Your task to perform on an android device: Open calendar and show me the first week of next month Image 0: 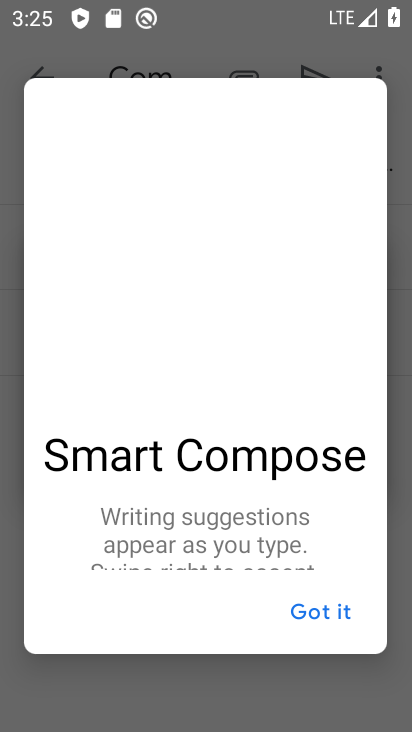
Step 0: press home button
Your task to perform on an android device: Open calendar and show me the first week of next month Image 1: 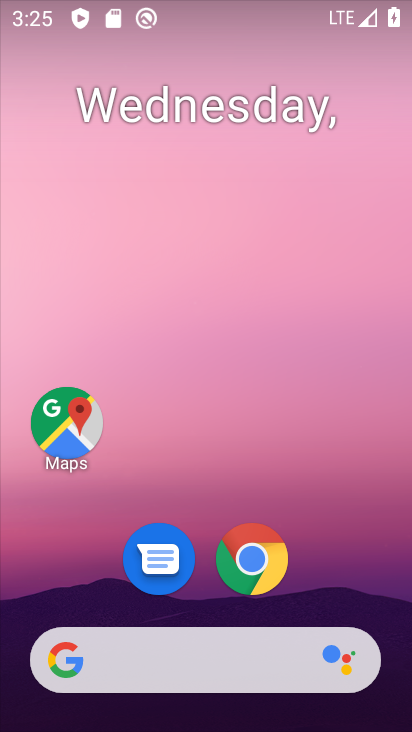
Step 1: drag from (334, 570) to (253, 177)
Your task to perform on an android device: Open calendar and show me the first week of next month Image 2: 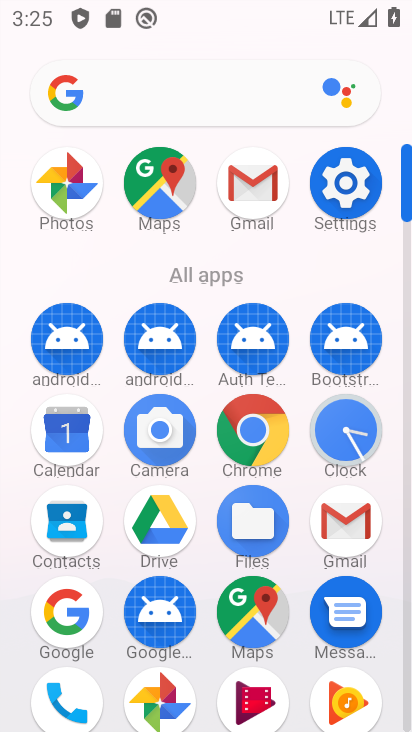
Step 2: click (57, 448)
Your task to perform on an android device: Open calendar and show me the first week of next month Image 3: 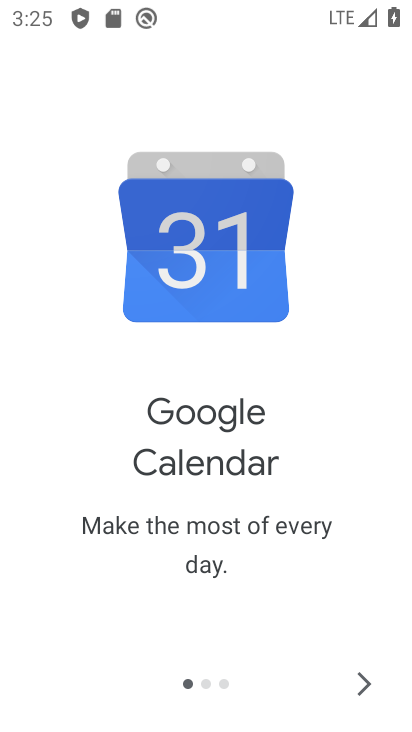
Step 3: click (353, 681)
Your task to perform on an android device: Open calendar and show me the first week of next month Image 4: 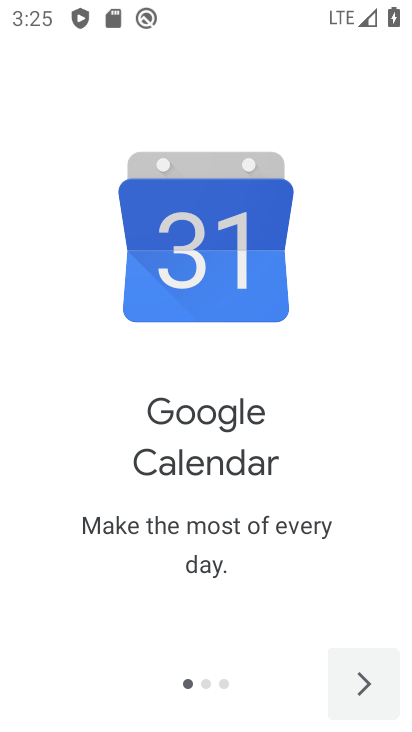
Step 4: click (357, 680)
Your task to perform on an android device: Open calendar and show me the first week of next month Image 5: 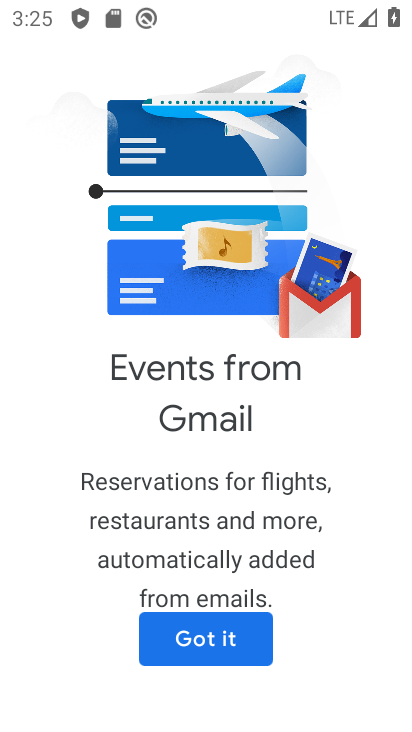
Step 5: click (196, 648)
Your task to perform on an android device: Open calendar and show me the first week of next month Image 6: 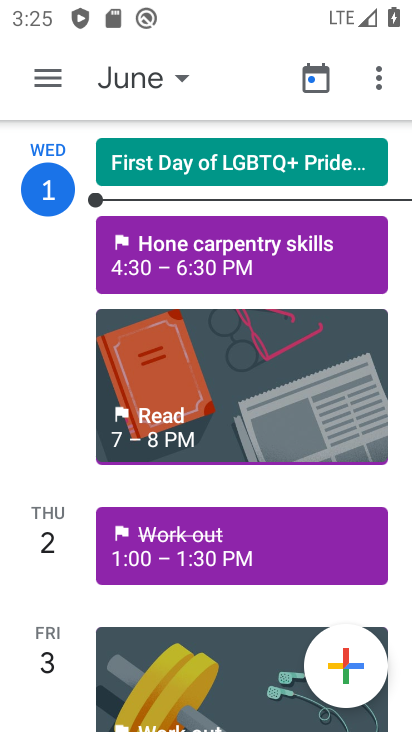
Step 6: click (145, 78)
Your task to perform on an android device: Open calendar and show me the first week of next month Image 7: 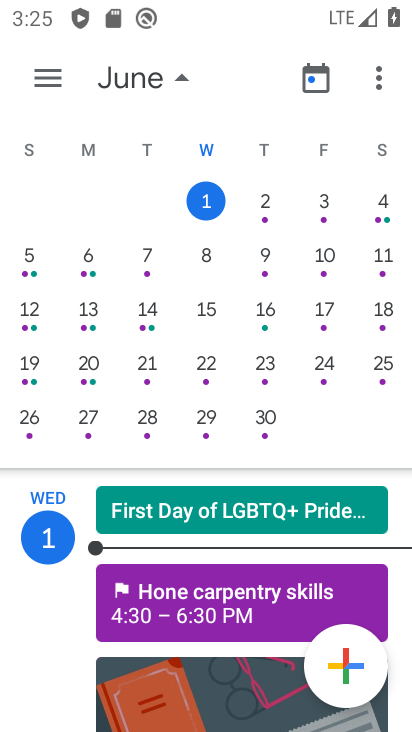
Step 7: drag from (404, 284) to (70, 262)
Your task to perform on an android device: Open calendar and show me the first week of next month Image 8: 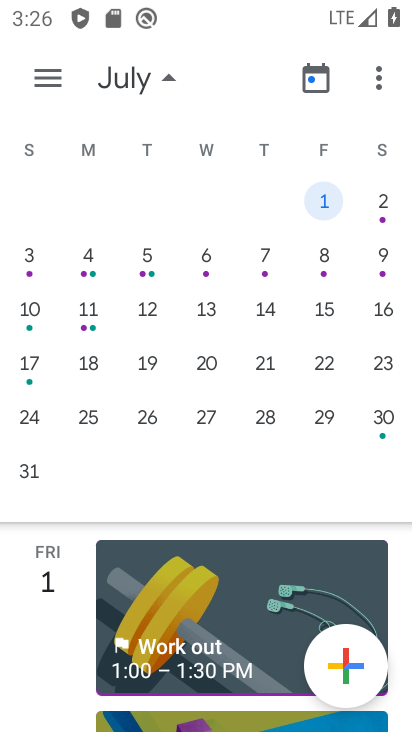
Step 8: click (32, 361)
Your task to perform on an android device: Open calendar and show me the first week of next month Image 9: 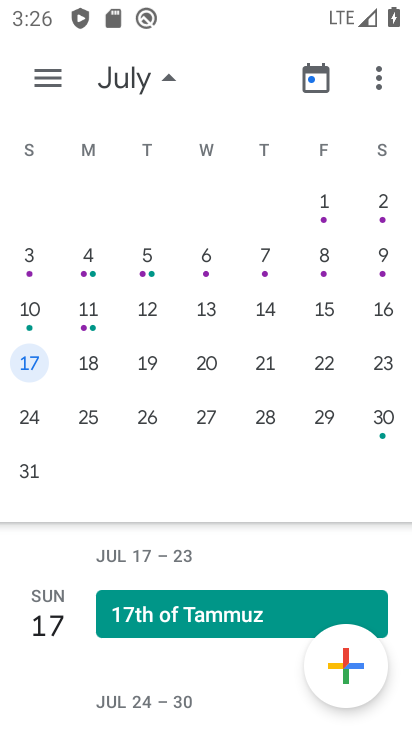
Step 9: click (44, 259)
Your task to perform on an android device: Open calendar and show me the first week of next month Image 10: 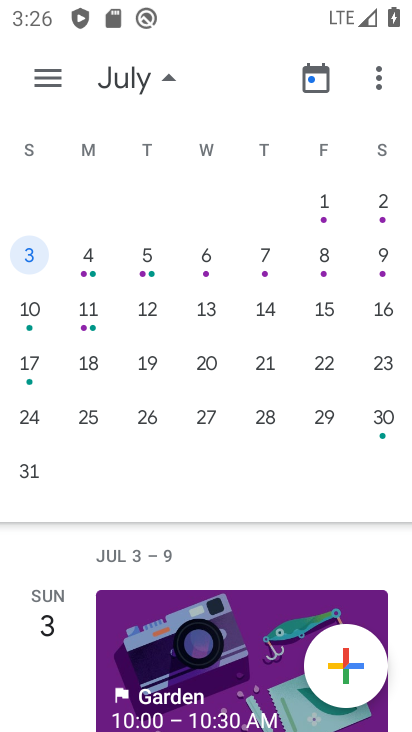
Step 10: task complete